Your task to perform on an android device: Show me recent news Image 0: 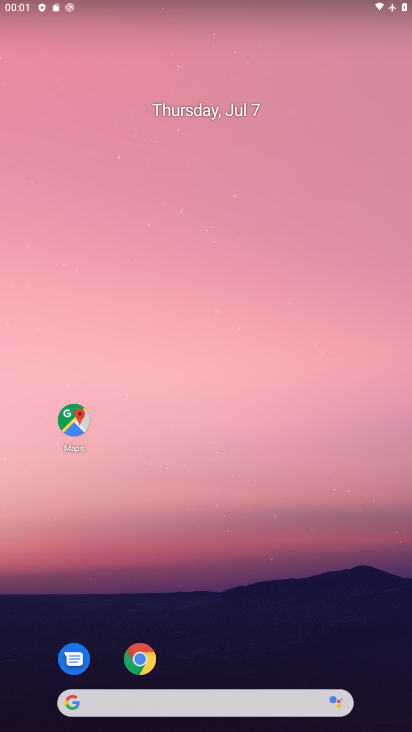
Step 0: drag from (251, 708) to (195, 150)
Your task to perform on an android device: Show me recent news Image 1: 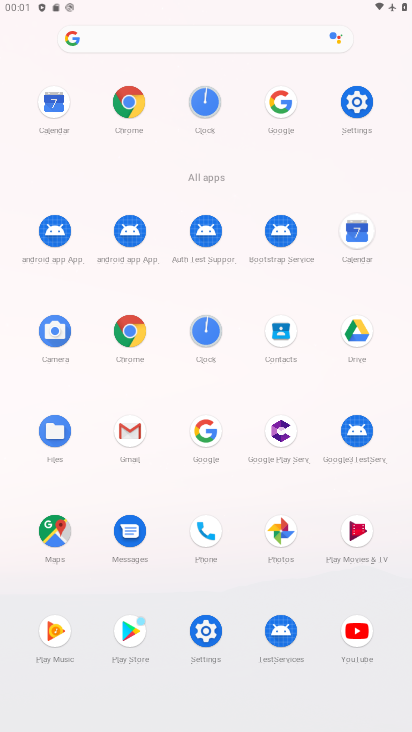
Step 1: press back button
Your task to perform on an android device: Show me recent news Image 2: 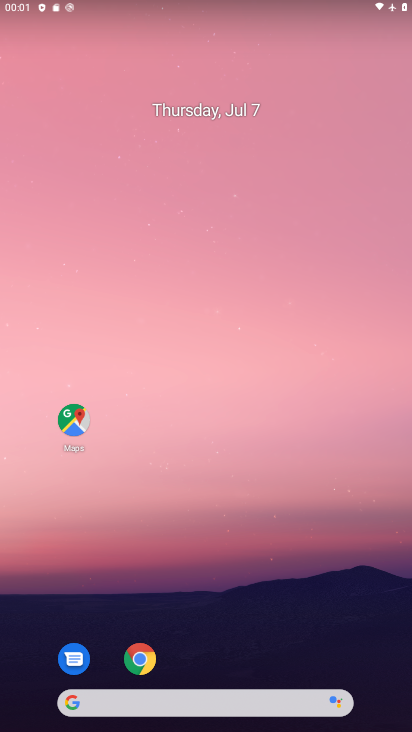
Step 2: drag from (4, 175) to (409, 364)
Your task to perform on an android device: Show me recent news Image 3: 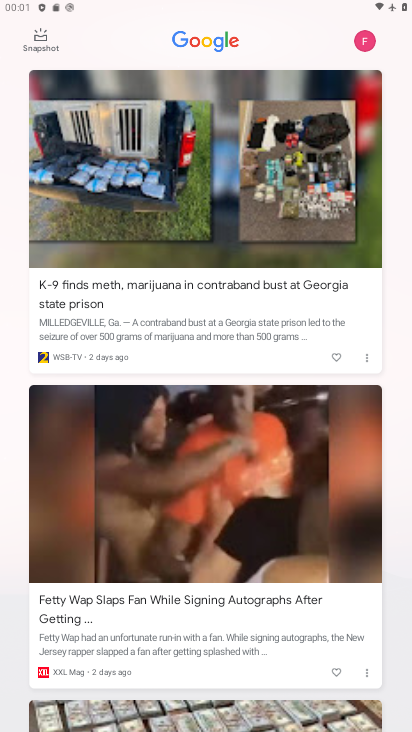
Step 3: drag from (221, 526) to (209, 347)
Your task to perform on an android device: Show me recent news Image 4: 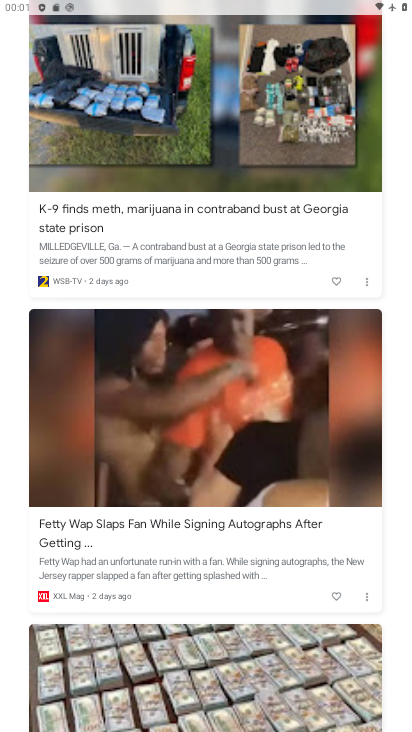
Step 4: drag from (224, 581) to (181, 100)
Your task to perform on an android device: Show me recent news Image 5: 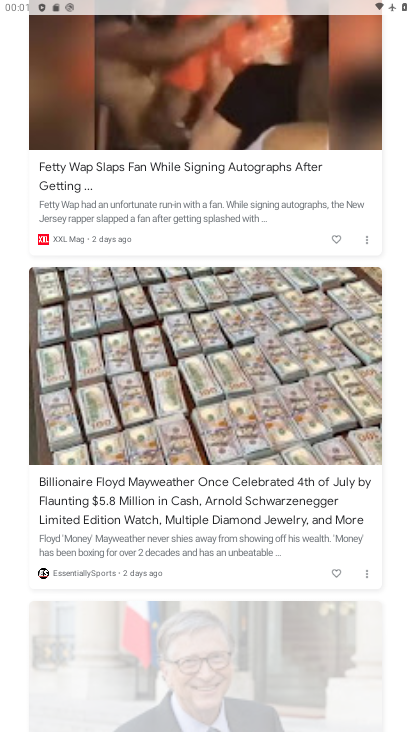
Step 5: drag from (210, 553) to (163, 24)
Your task to perform on an android device: Show me recent news Image 6: 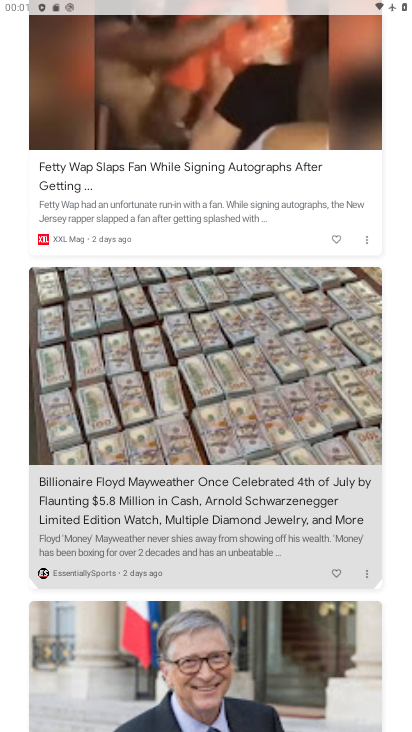
Step 6: drag from (212, 505) to (248, 72)
Your task to perform on an android device: Show me recent news Image 7: 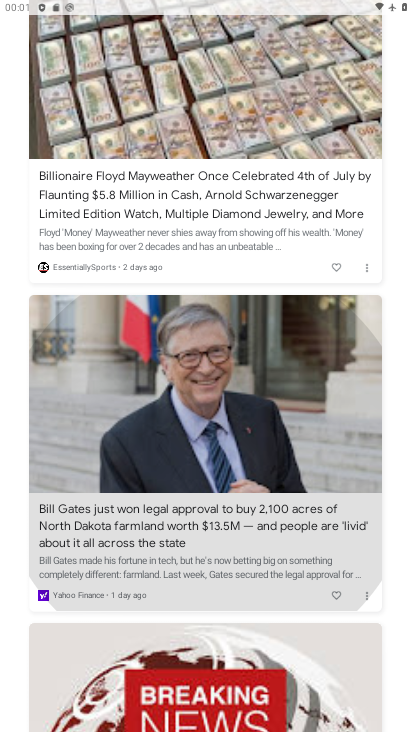
Step 7: drag from (193, 529) to (179, 71)
Your task to perform on an android device: Show me recent news Image 8: 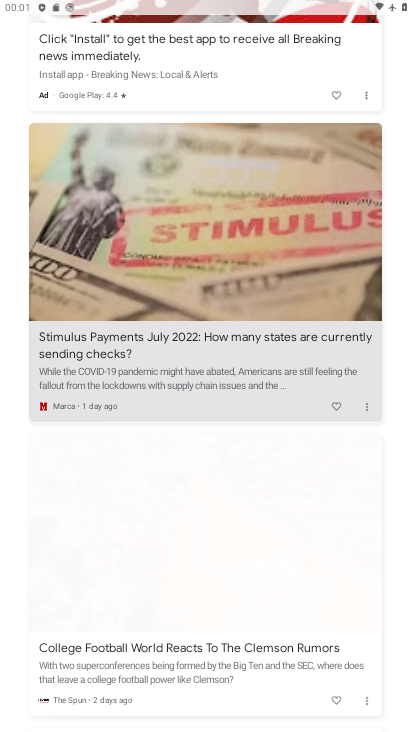
Step 8: drag from (180, 435) to (244, 37)
Your task to perform on an android device: Show me recent news Image 9: 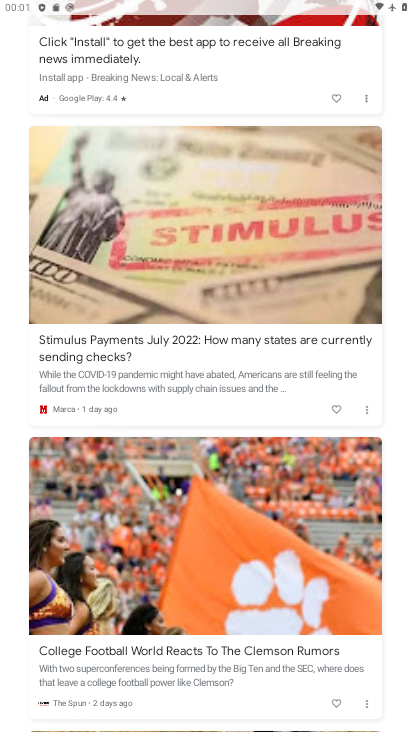
Step 9: drag from (198, 441) to (203, 14)
Your task to perform on an android device: Show me recent news Image 10: 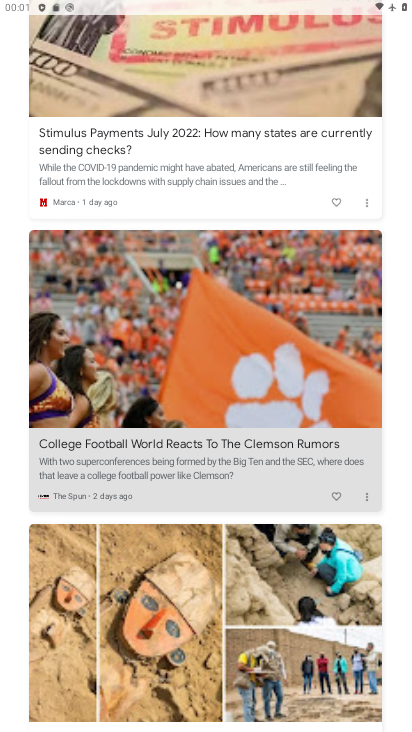
Step 10: drag from (212, 523) to (133, 318)
Your task to perform on an android device: Show me recent news Image 11: 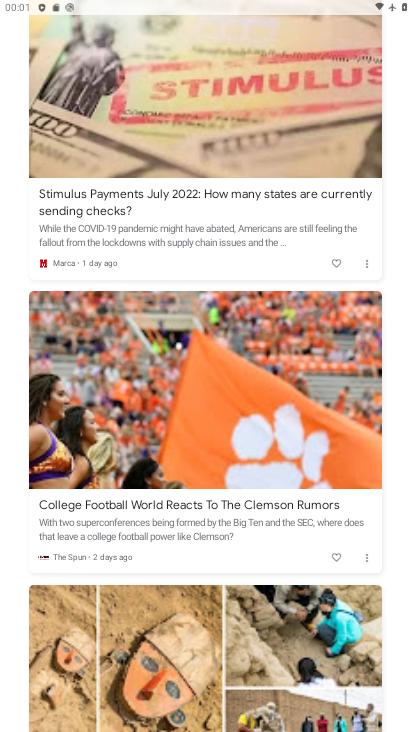
Step 11: drag from (166, 586) to (166, 164)
Your task to perform on an android device: Show me recent news Image 12: 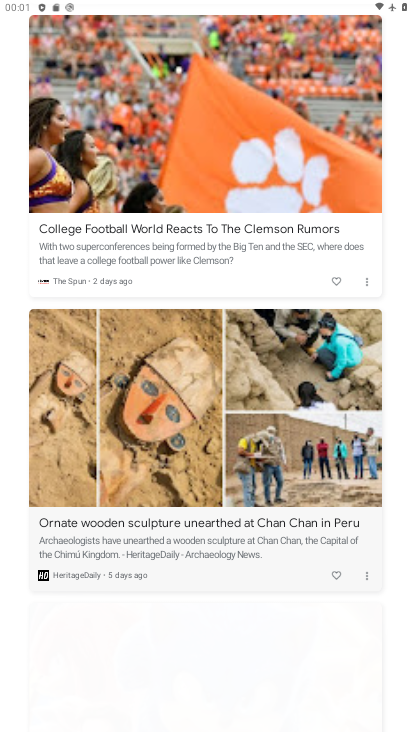
Step 12: drag from (183, 604) to (113, 257)
Your task to perform on an android device: Show me recent news Image 13: 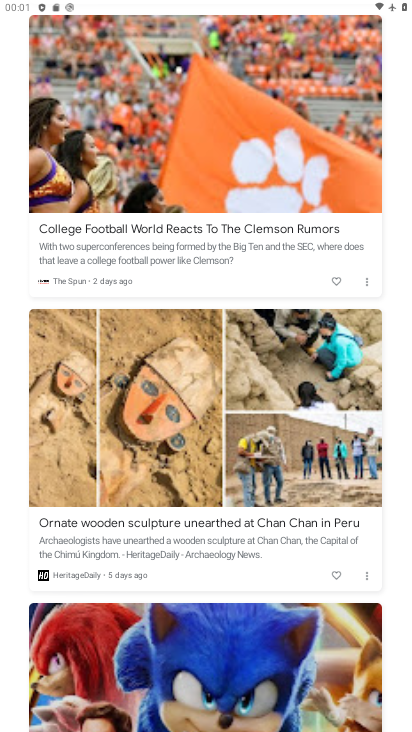
Step 13: drag from (176, 547) to (164, 150)
Your task to perform on an android device: Show me recent news Image 14: 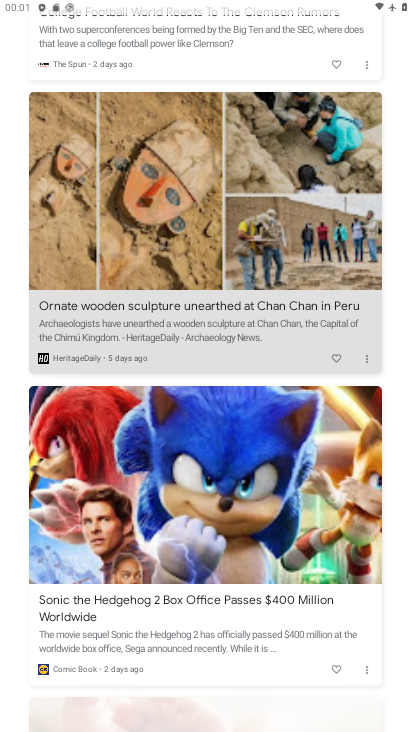
Step 14: drag from (206, 429) to (162, 59)
Your task to perform on an android device: Show me recent news Image 15: 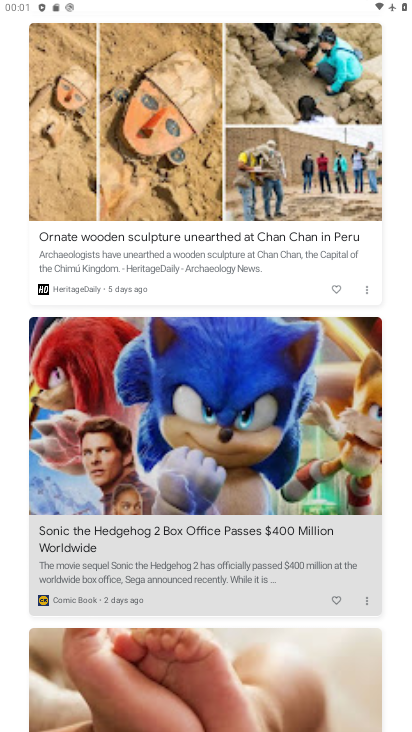
Step 15: drag from (201, 491) to (140, 183)
Your task to perform on an android device: Show me recent news Image 16: 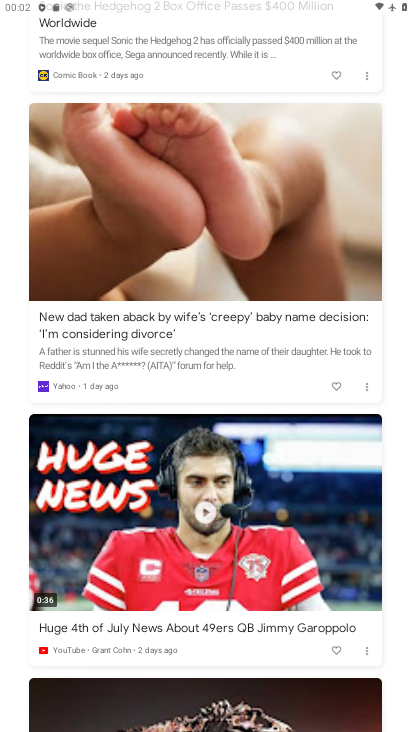
Step 16: drag from (218, 580) to (191, 111)
Your task to perform on an android device: Show me recent news Image 17: 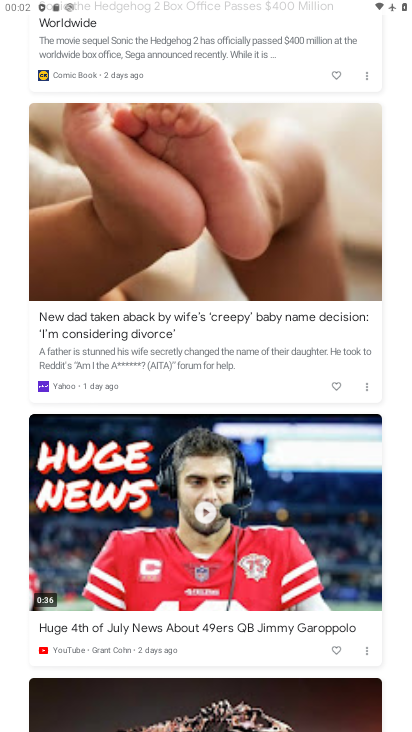
Step 17: drag from (279, 516) to (197, 295)
Your task to perform on an android device: Show me recent news Image 18: 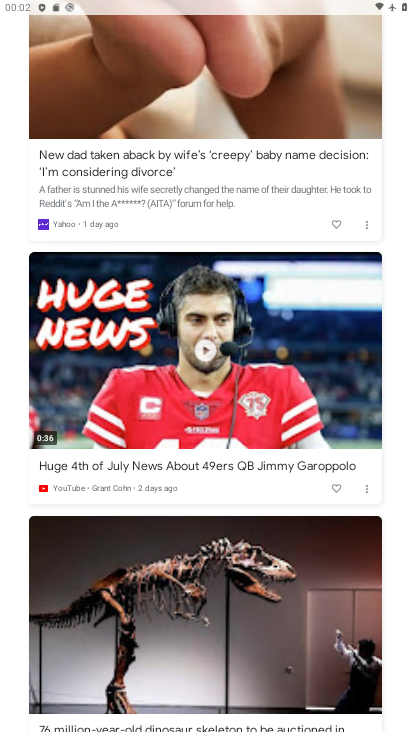
Step 18: drag from (256, 580) to (218, 245)
Your task to perform on an android device: Show me recent news Image 19: 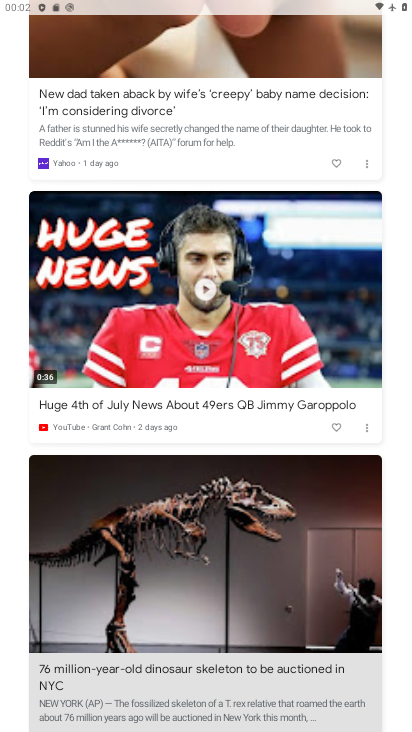
Step 19: drag from (240, 452) to (219, 83)
Your task to perform on an android device: Show me recent news Image 20: 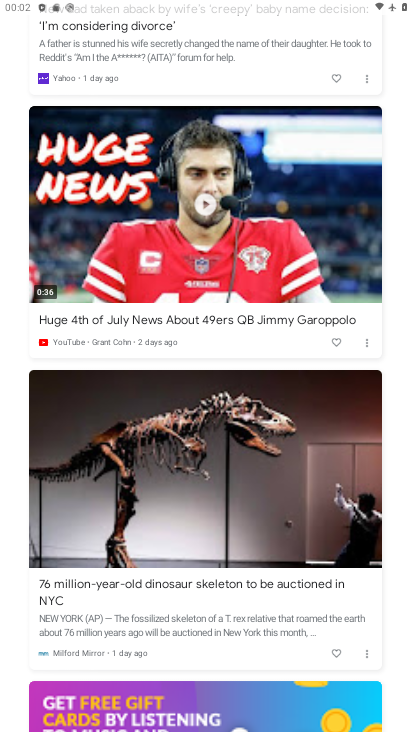
Step 20: drag from (214, 512) to (183, 53)
Your task to perform on an android device: Show me recent news Image 21: 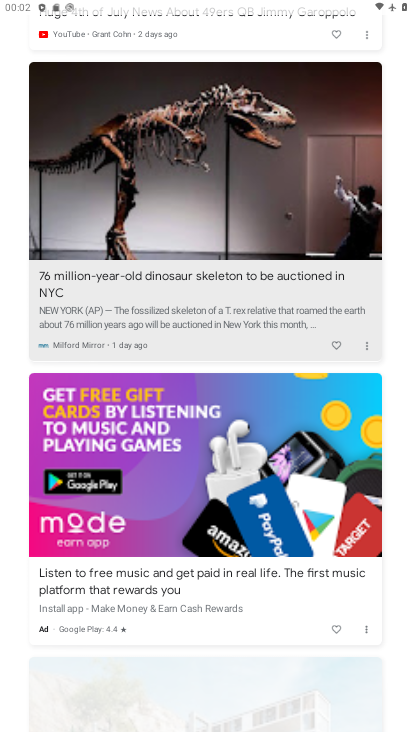
Step 21: drag from (282, 414) to (216, 203)
Your task to perform on an android device: Show me recent news Image 22: 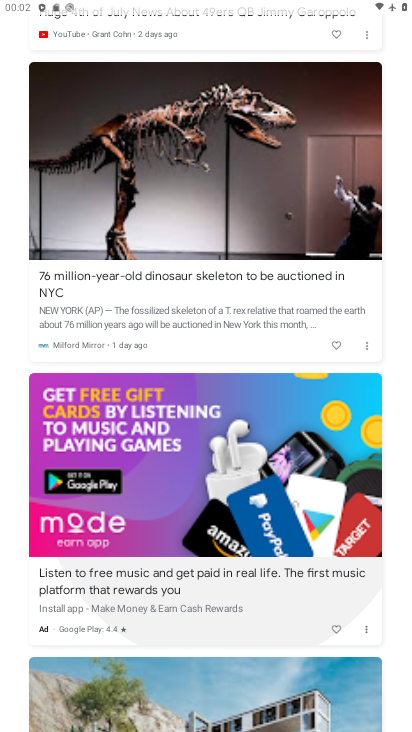
Step 22: drag from (144, 542) to (146, 158)
Your task to perform on an android device: Show me recent news Image 23: 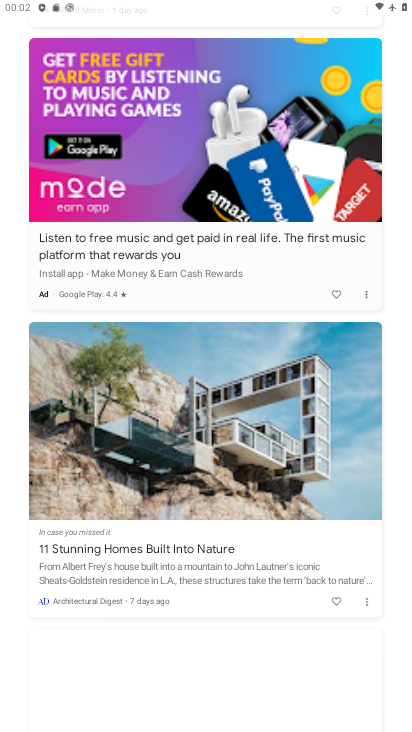
Step 23: drag from (207, 519) to (182, 170)
Your task to perform on an android device: Show me recent news Image 24: 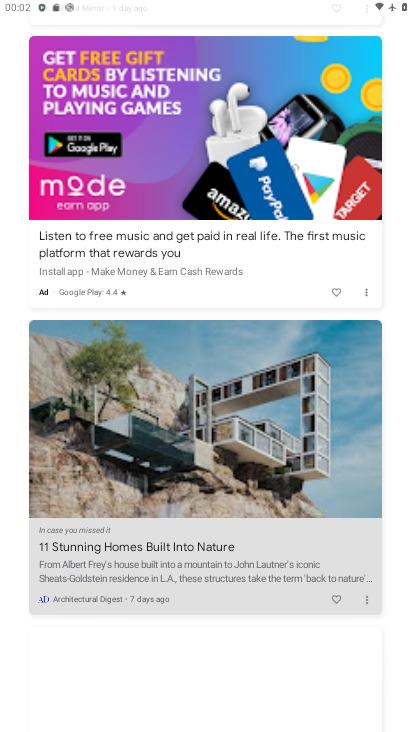
Step 24: drag from (205, 479) to (297, 653)
Your task to perform on an android device: Show me recent news Image 25: 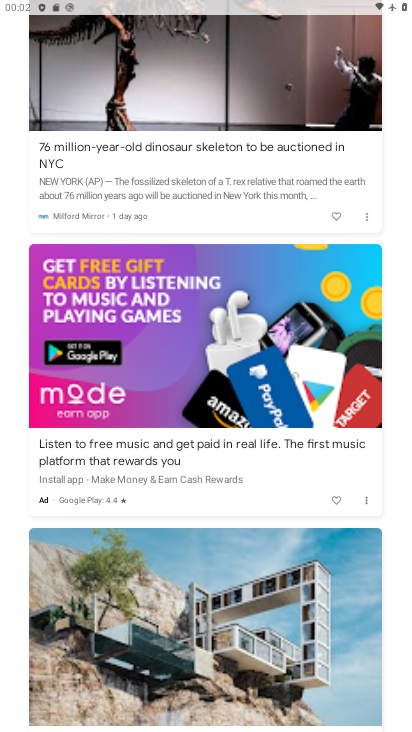
Step 25: drag from (132, 424) to (220, 666)
Your task to perform on an android device: Show me recent news Image 26: 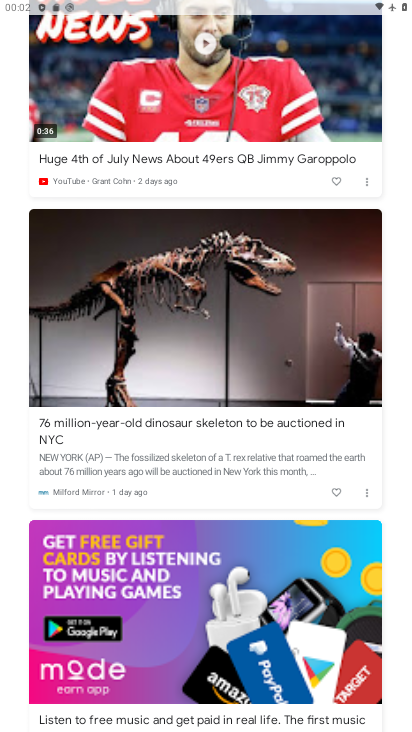
Step 26: drag from (114, 168) to (227, 675)
Your task to perform on an android device: Show me recent news Image 27: 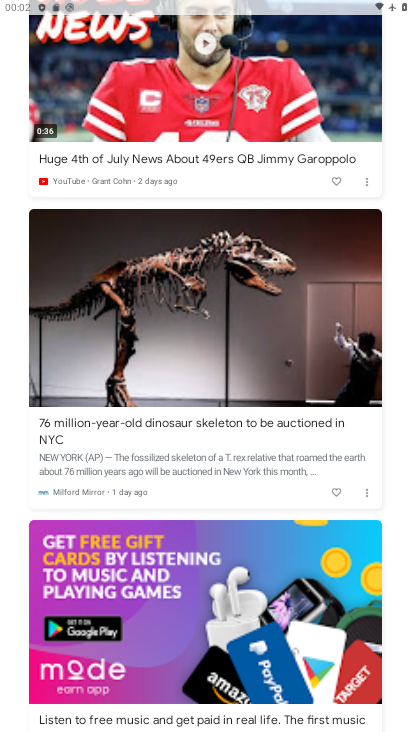
Step 27: drag from (191, 483) to (239, 592)
Your task to perform on an android device: Show me recent news Image 28: 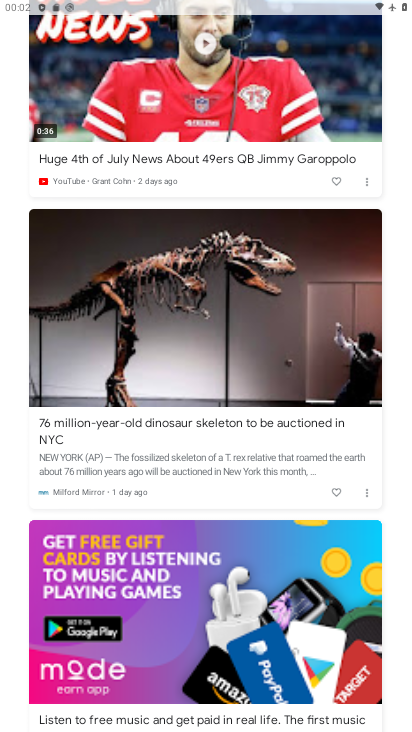
Step 28: drag from (230, 452) to (284, 518)
Your task to perform on an android device: Show me recent news Image 29: 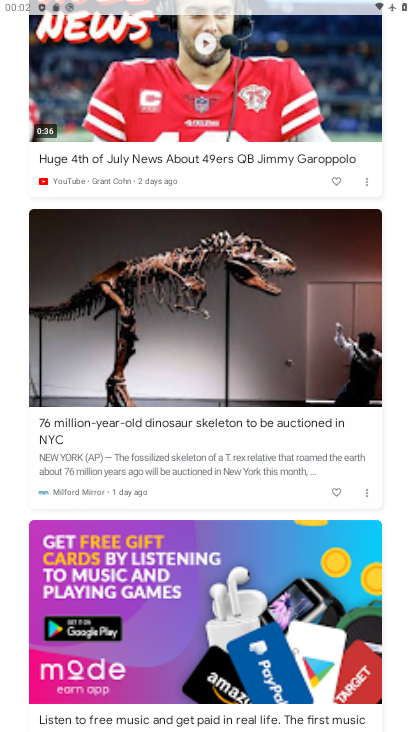
Step 29: click (263, 670)
Your task to perform on an android device: Show me recent news Image 30: 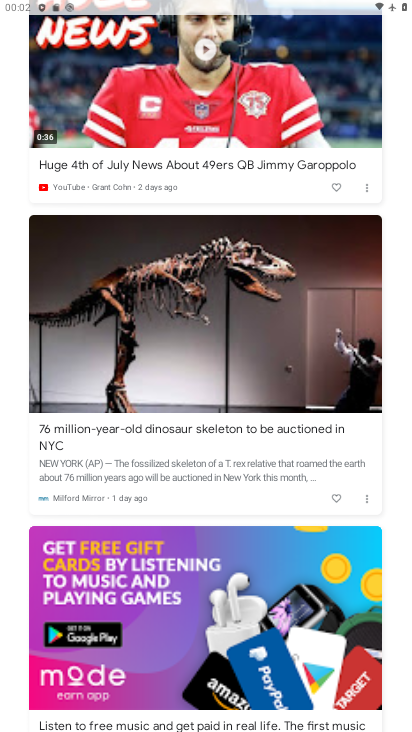
Step 30: task complete